Your task to perform on an android device: find photos in the google photos app Image 0: 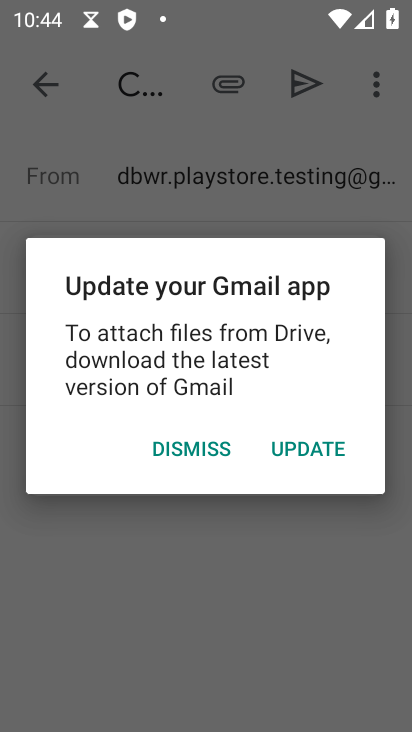
Step 0: press home button
Your task to perform on an android device: find photos in the google photos app Image 1: 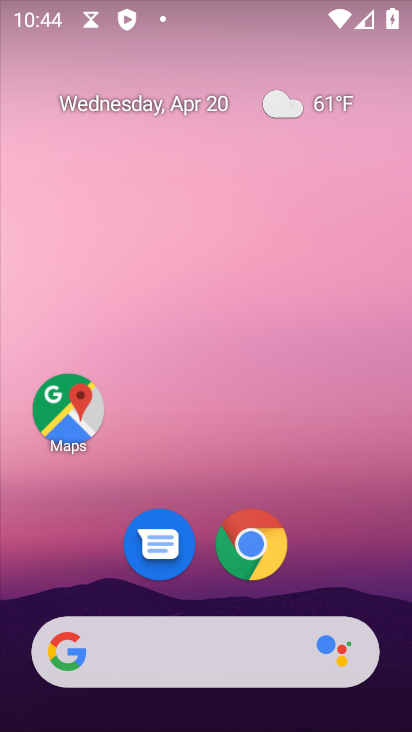
Step 1: drag from (167, 634) to (322, 43)
Your task to perform on an android device: find photos in the google photos app Image 2: 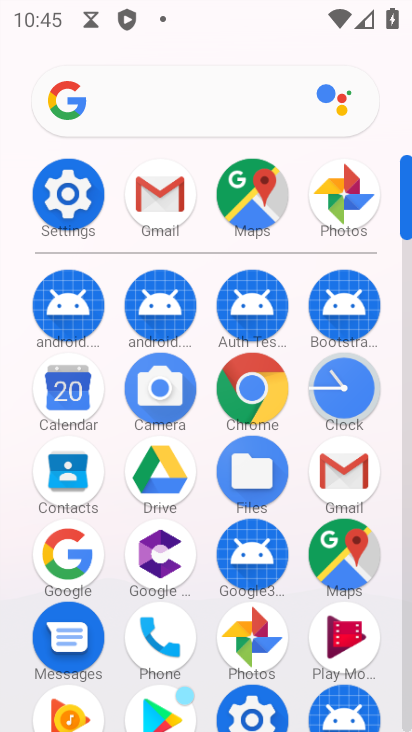
Step 2: click (342, 199)
Your task to perform on an android device: find photos in the google photos app Image 3: 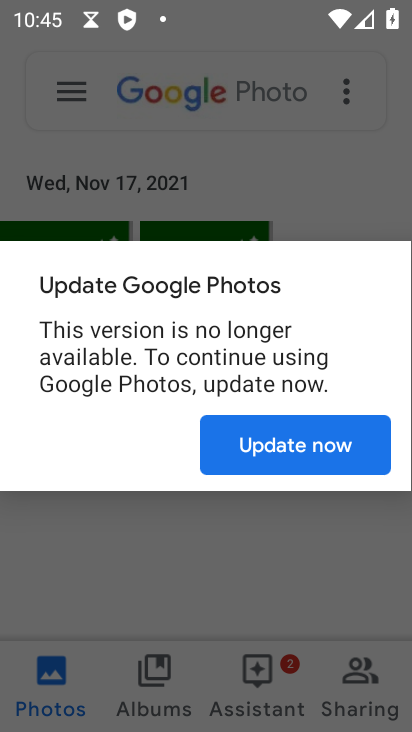
Step 3: click (337, 452)
Your task to perform on an android device: find photos in the google photos app Image 4: 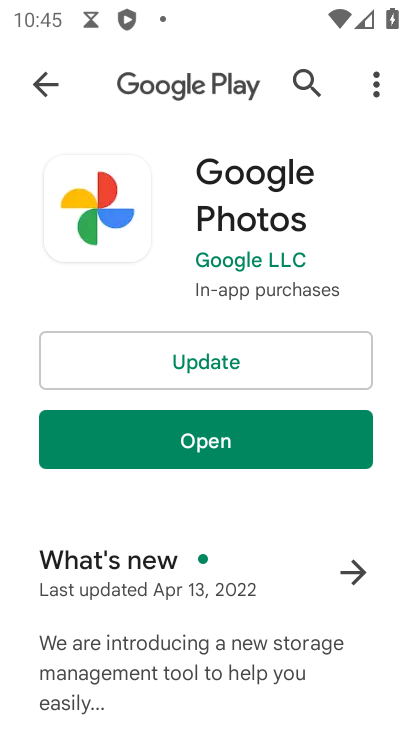
Step 4: click (233, 447)
Your task to perform on an android device: find photos in the google photos app Image 5: 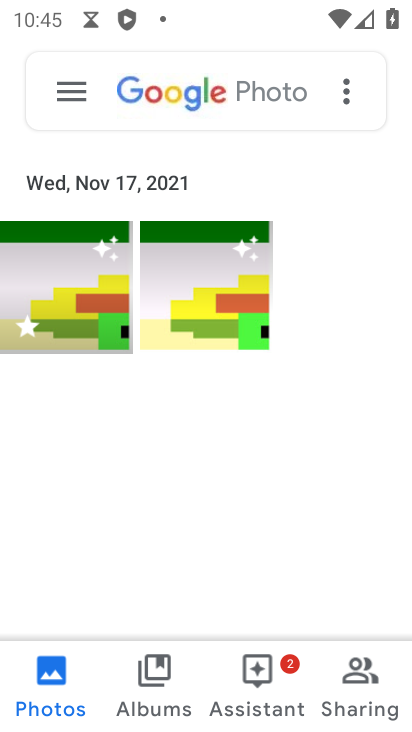
Step 5: task complete